Your task to perform on an android device: Open Google Chrome and open the bookmarks view Image 0: 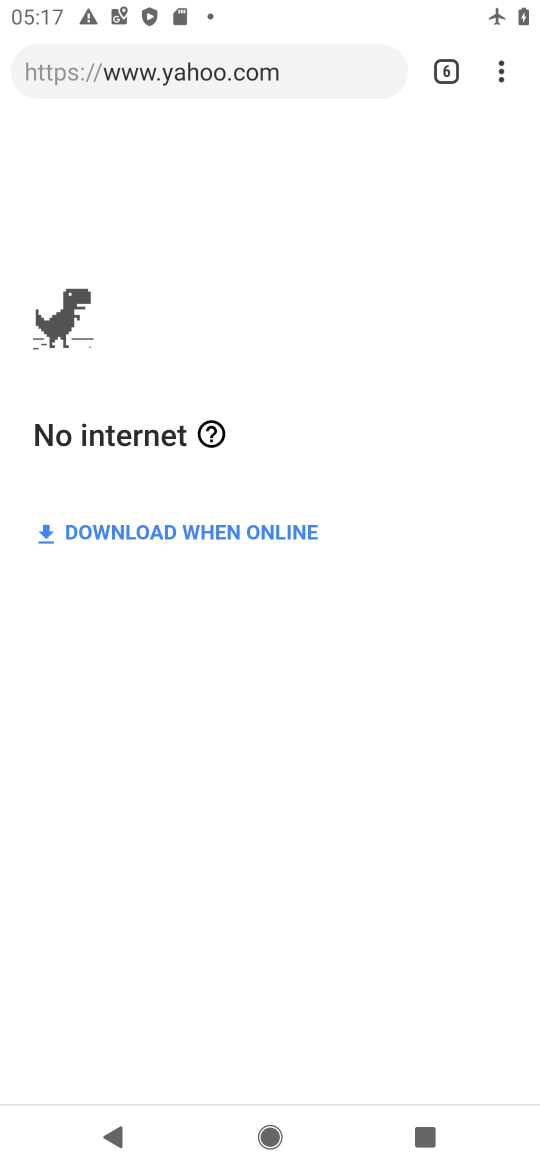
Step 0: press home button
Your task to perform on an android device: Open Google Chrome and open the bookmarks view Image 1: 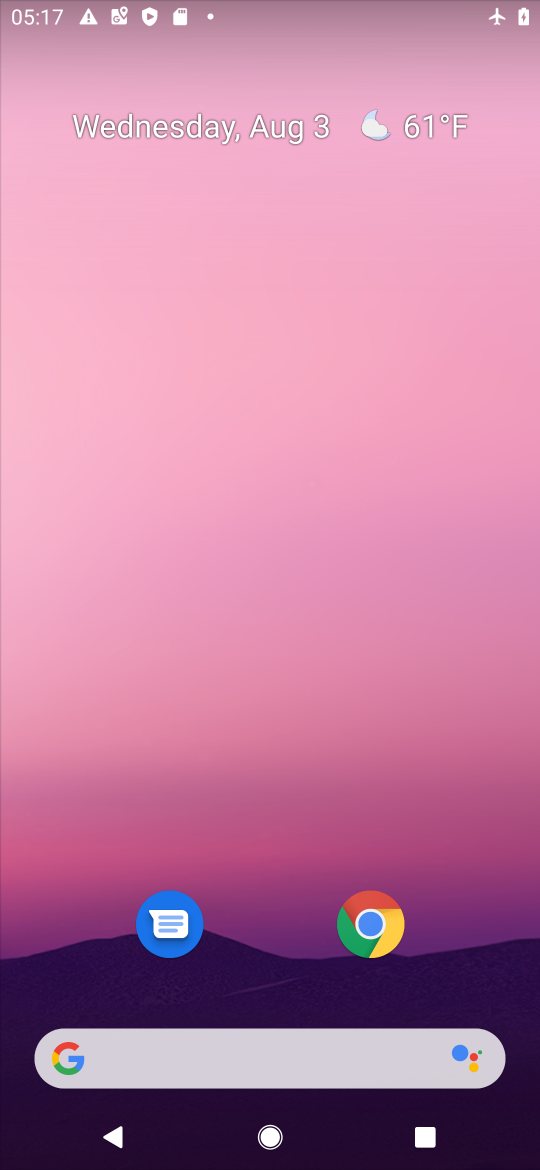
Step 1: click (341, 891)
Your task to perform on an android device: Open Google Chrome and open the bookmarks view Image 2: 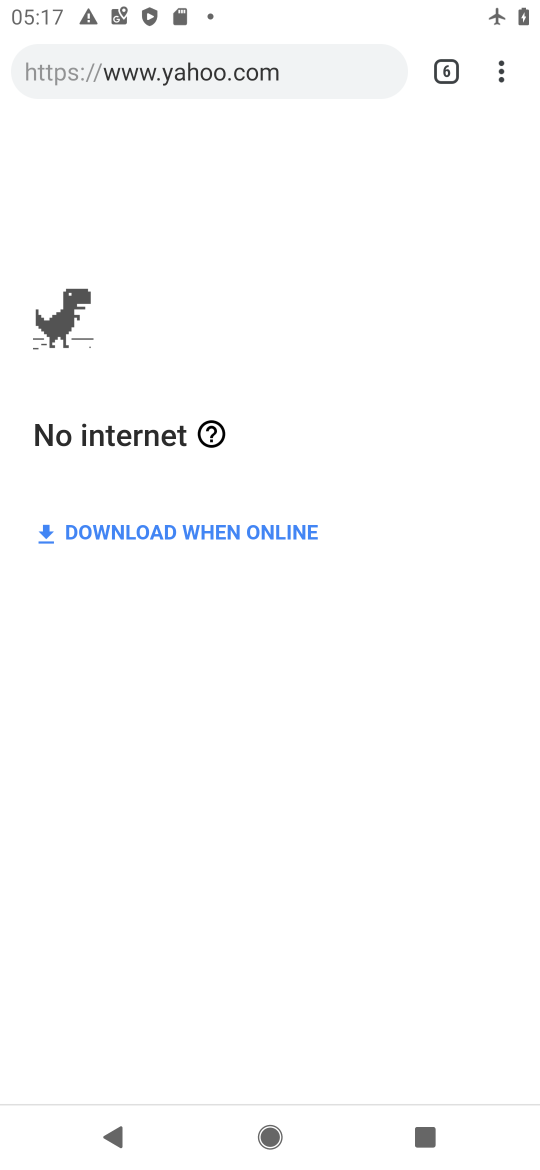
Step 2: click (495, 80)
Your task to perform on an android device: Open Google Chrome and open the bookmarks view Image 3: 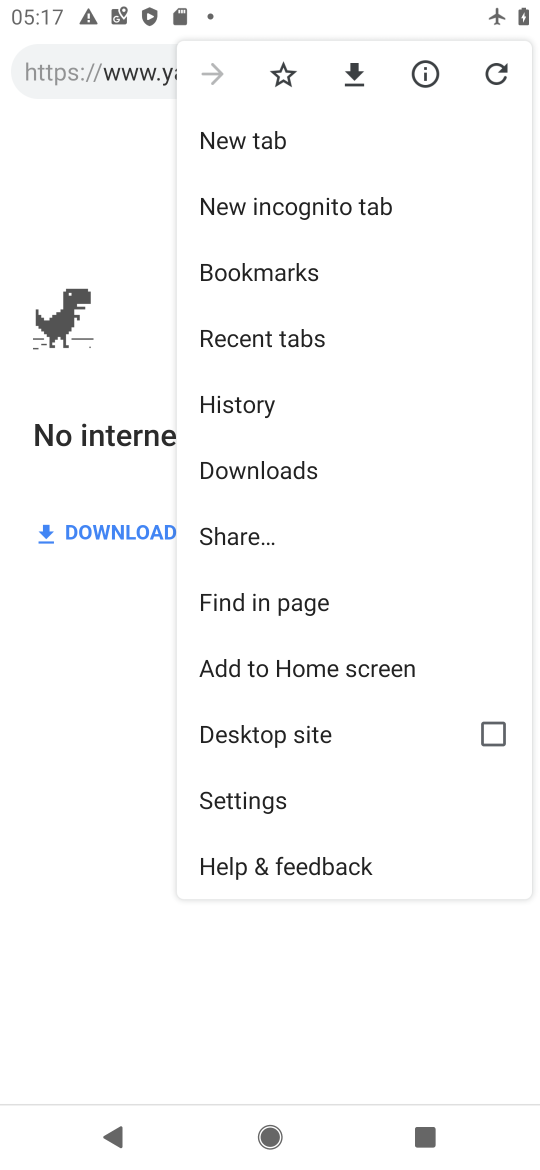
Step 3: click (313, 273)
Your task to perform on an android device: Open Google Chrome and open the bookmarks view Image 4: 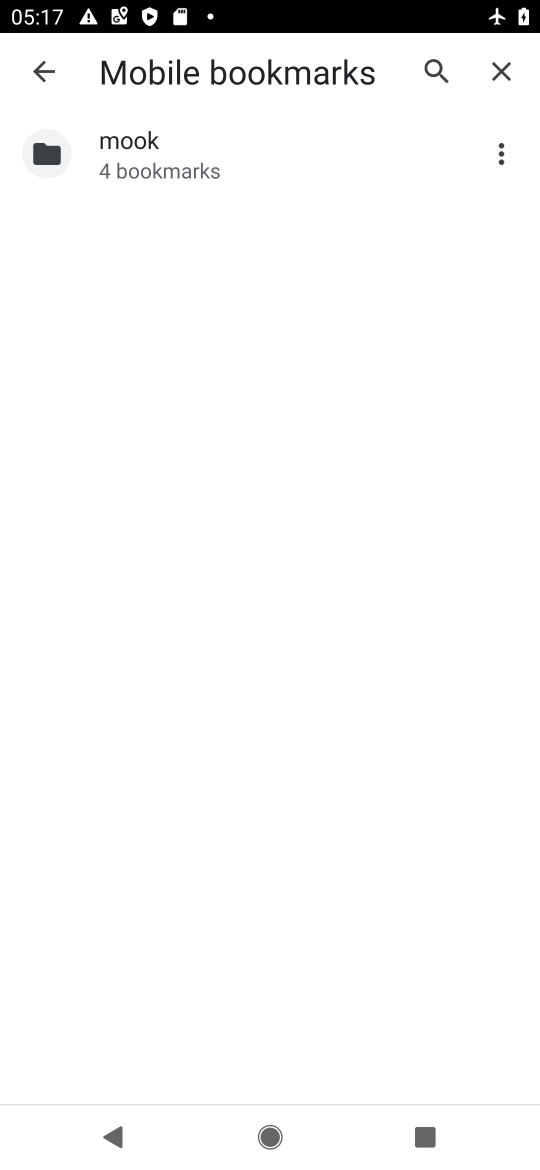
Step 4: task complete